Your task to perform on an android device: Show me the alarms in the clock app Image 0: 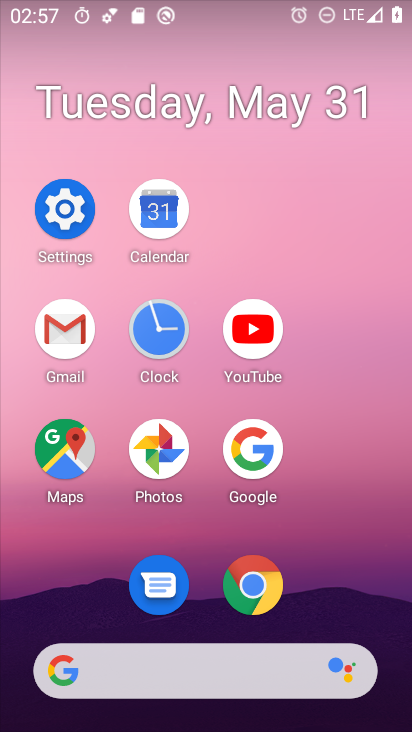
Step 0: click (155, 339)
Your task to perform on an android device: Show me the alarms in the clock app Image 1: 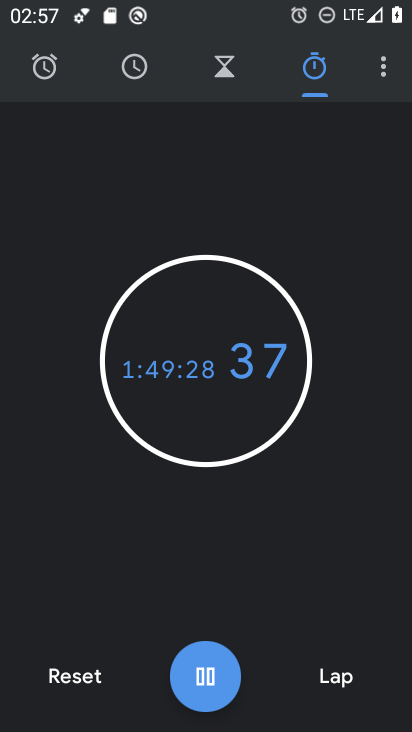
Step 1: click (60, 100)
Your task to perform on an android device: Show me the alarms in the clock app Image 2: 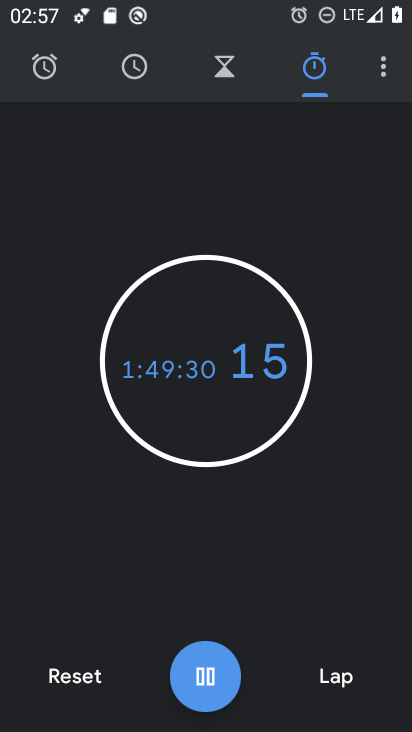
Step 2: click (49, 66)
Your task to perform on an android device: Show me the alarms in the clock app Image 3: 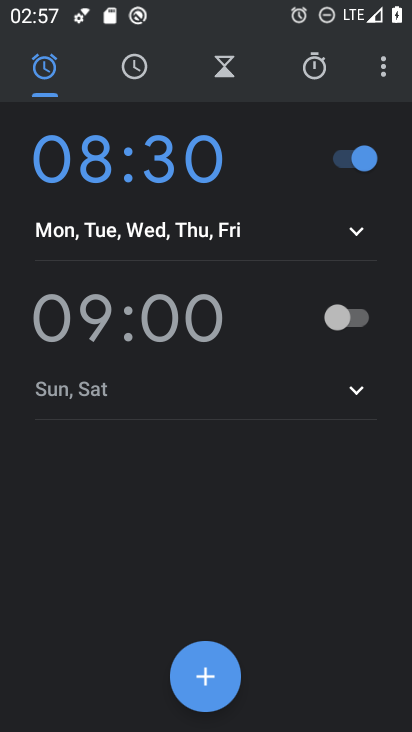
Step 3: task complete